Your task to perform on an android device: change the clock display to analog Image 0: 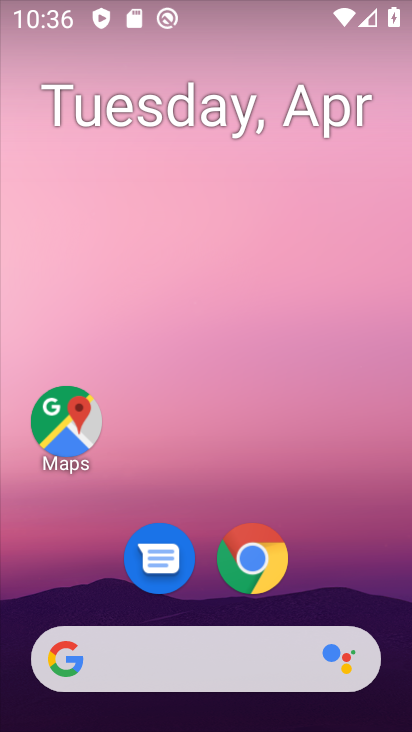
Step 0: drag from (368, 433) to (397, 391)
Your task to perform on an android device: change the clock display to analog Image 1: 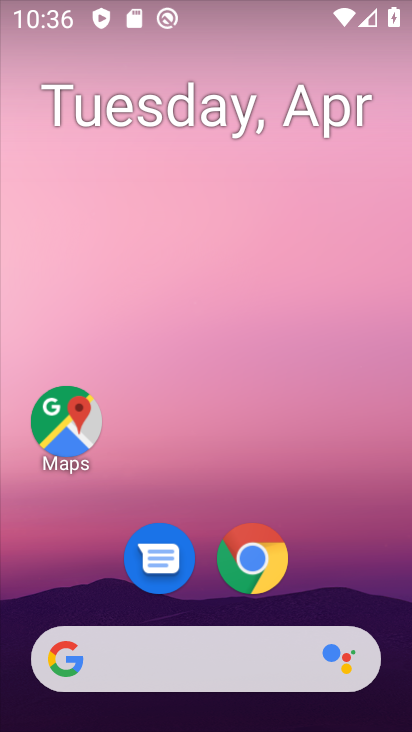
Step 1: drag from (333, 433) to (344, 80)
Your task to perform on an android device: change the clock display to analog Image 2: 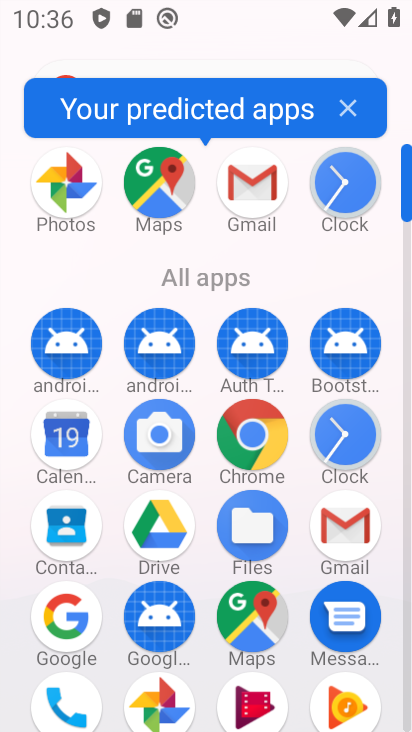
Step 2: click (345, 179)
Your task to perform on an android device: change the clock display to analog Image 3: 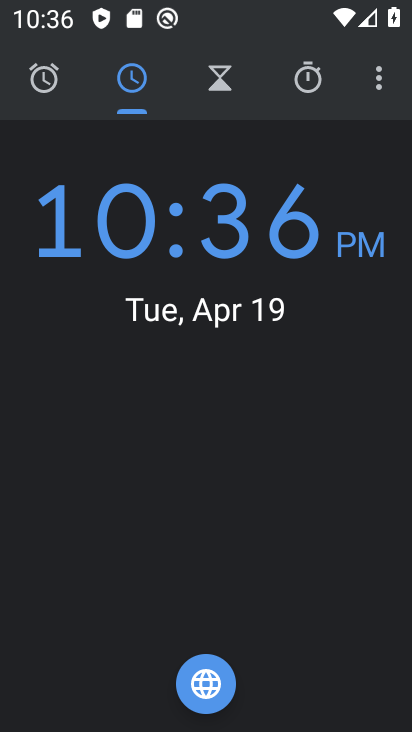
Step 3: click (382, 80)
Your task to perform on an android device: change the clock display to analog Image 4: 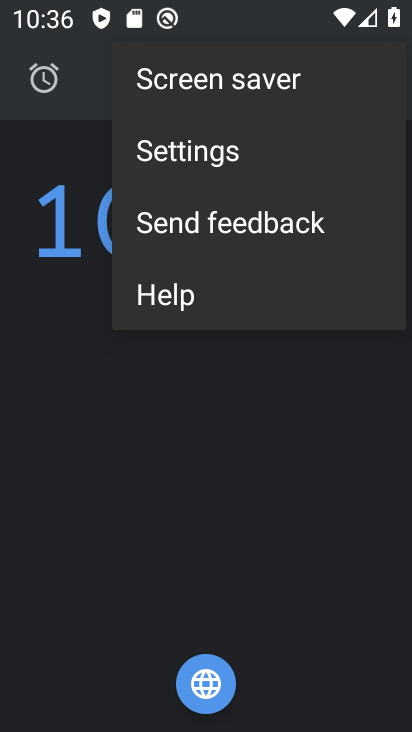
Step 4: click (220, 165)
Your task to perform on an android device: change the clock display to analog Image 5: 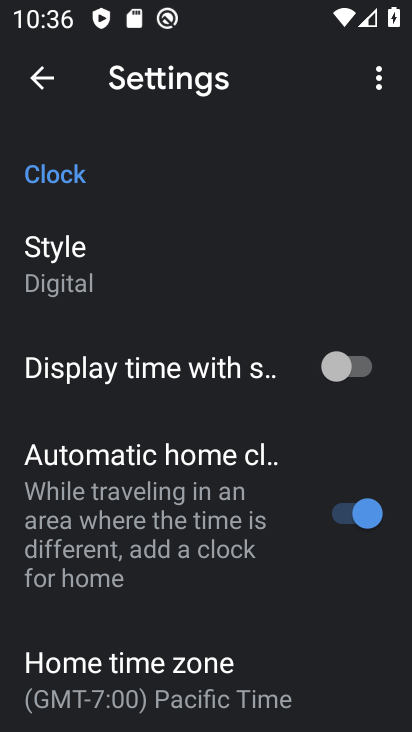
Step 5: click (78, 280)
Your task to perform on an android device: change the clock display to analog Image 6: 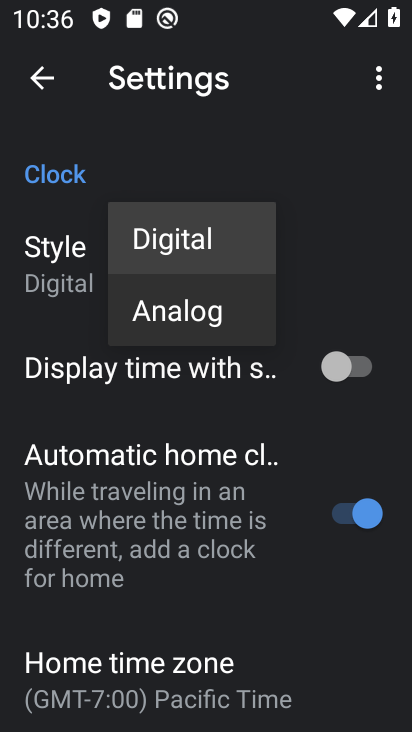
Step 6: click (149, 296)
Your task to perform on an android device: change the clock display to analog Image 7: 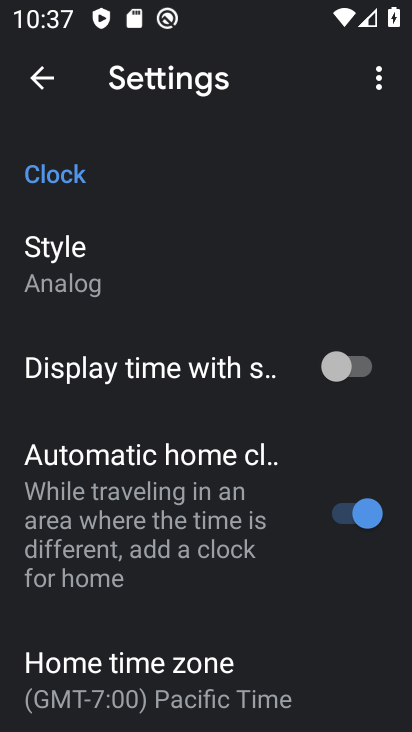
Step 7: task complete